Your task to perform on an android device: Open ESPN.com Image 0: 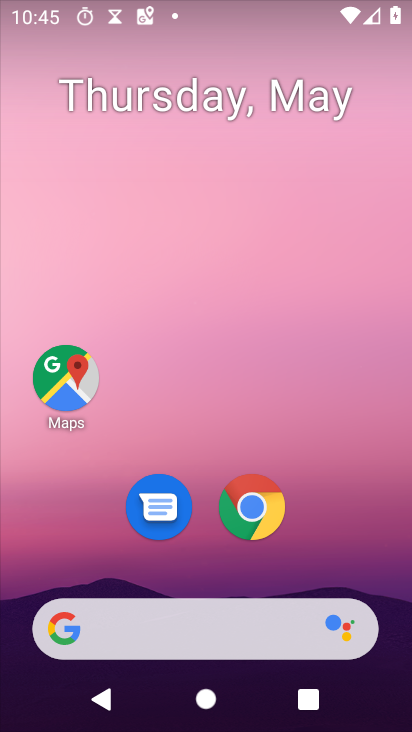
Step 0: click (258, 527)
Your task to perform on an android device: Open ESPN.com Image 1: 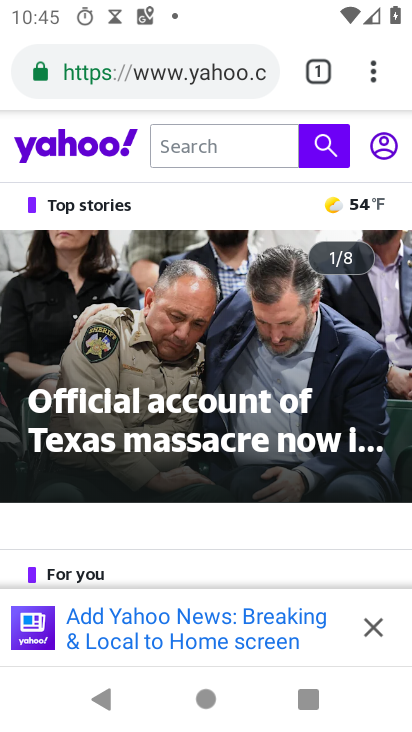
Step 1: click (322, 85)
Your task to perform on an android device: Open ESPN.com Image 2: 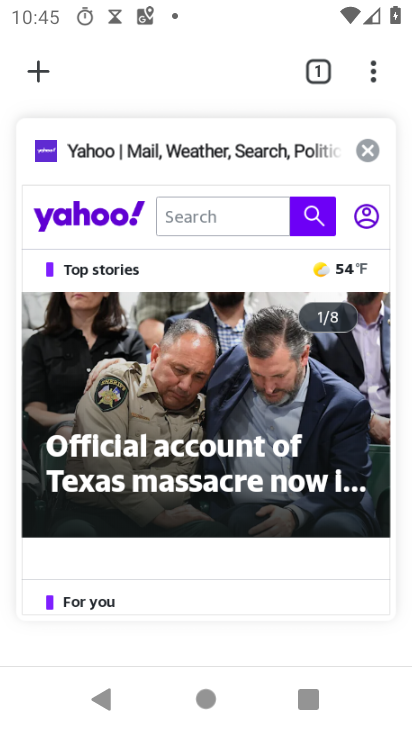
Step 2: click (370, 154)
Your task to perform on an android device: Open ESPN.com Image 3: 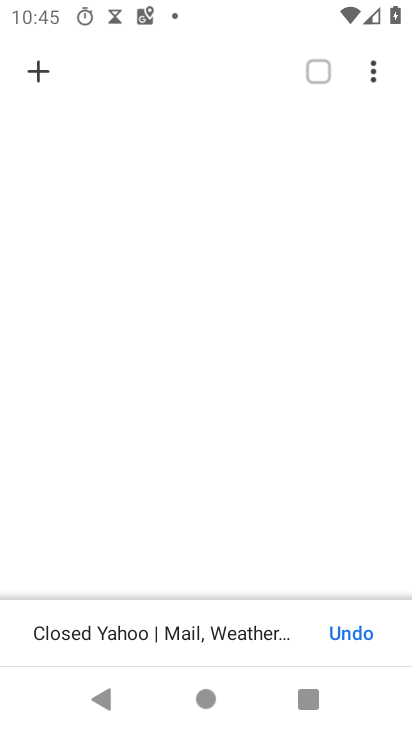
Step 3: click (40, 72)
Your task to perform on an android device: Open ESPN.com Image 4: 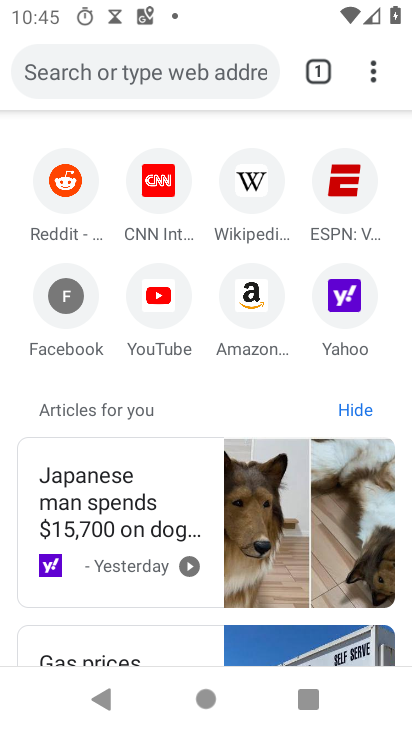
Step 4: click (347, 218)
Your task to perform on an android device: Open ESPN.com Image 5: 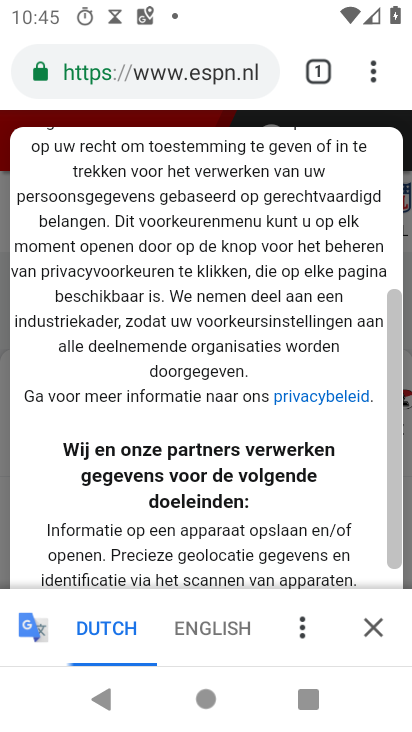
Step 5: task complete